Your task to perform on an android device: turn on translation in the chrome app Image 0: 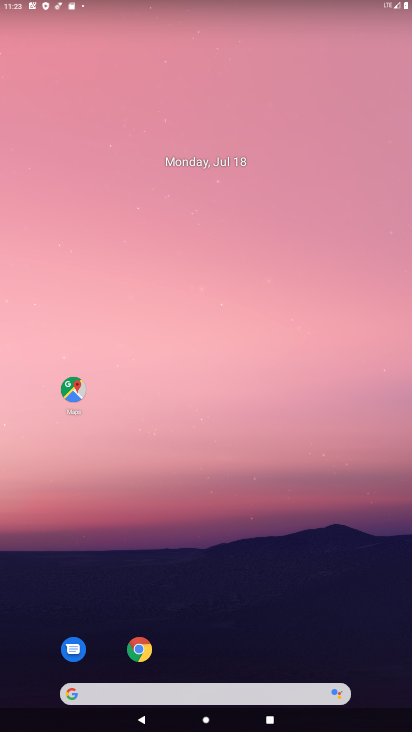
Step 0: click (147, 647)
Your task to perform on an android device: turn on translation in the chrome app Image 1: 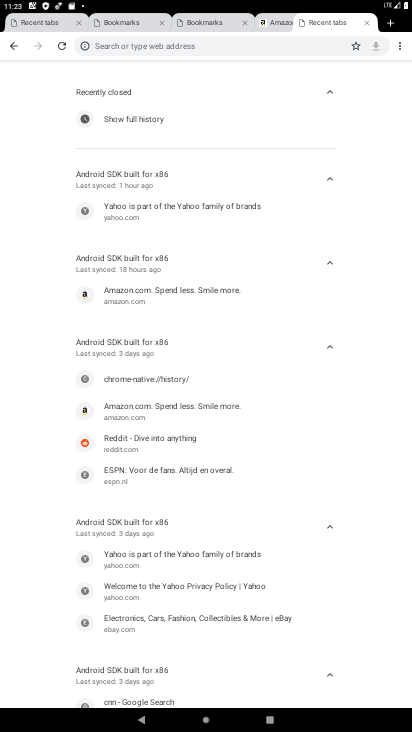
Step 1: click (402, 44)
Your task to perform on an android device: turn on translation in the chrome app Image 2: 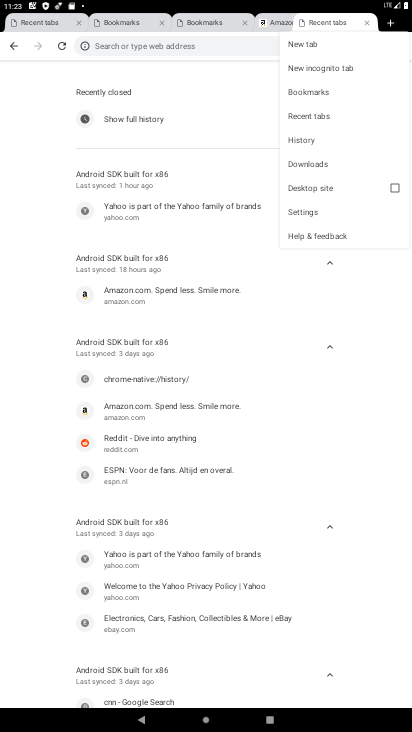
Step 2: click (307, 209)
Your task to perform on an android device: turn on translation in the chrome app Image 3: 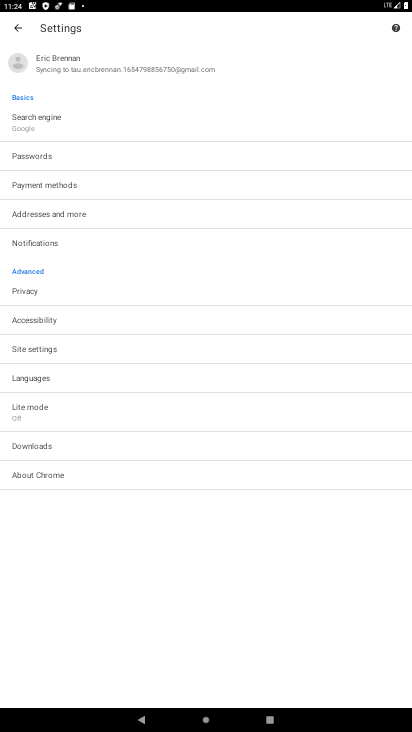
Step 3: click (76, 381)
Your task to perform on an android device: turn on translation in the chrome app Image 4: 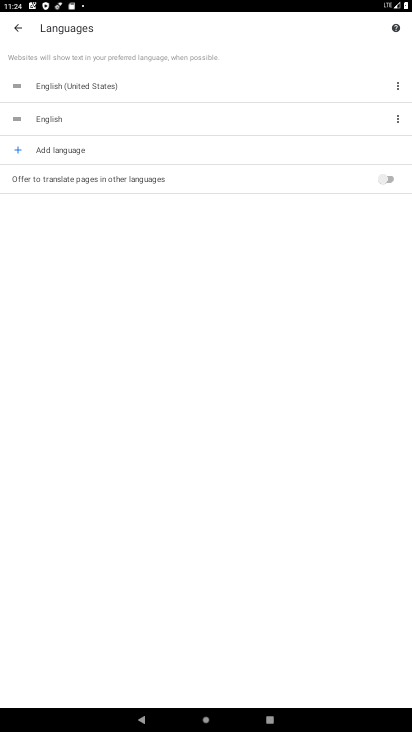
Step 4: click (390, 176)
Your task to perform on an android device: turn on translation in the chrome app Image 5: 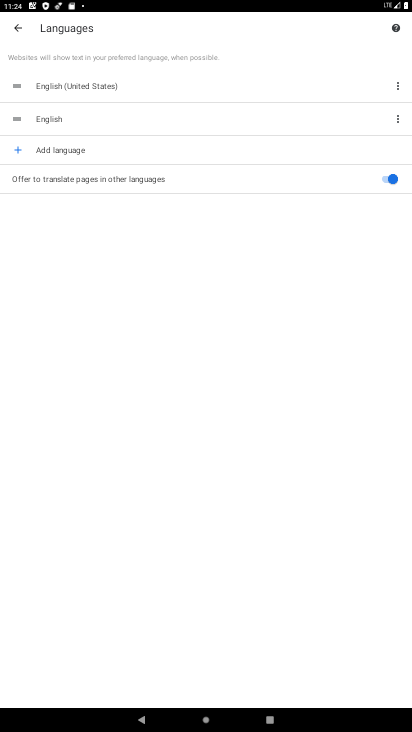
Step 5: task complete